Your task to perform on an android device: Go to CNN.com Image 0: 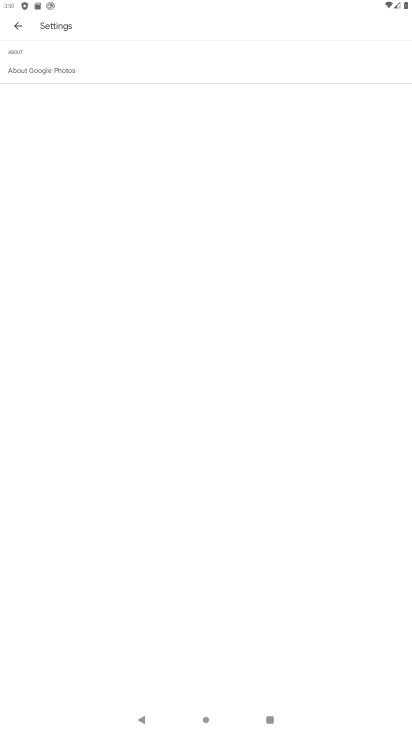
Step 0: press home button
Your task to perform on an android device: Go to CNN.com Image 1: 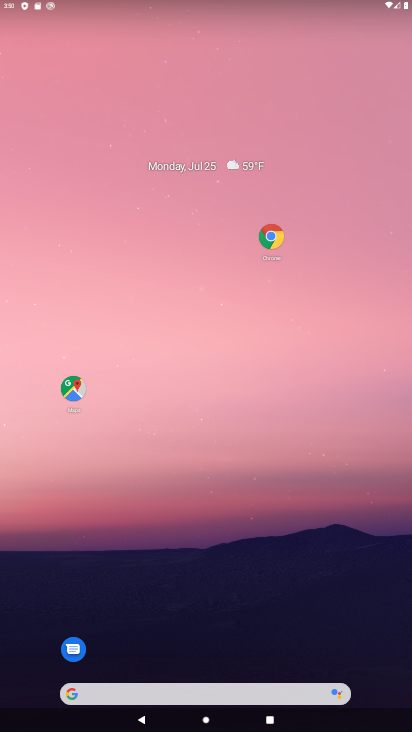
Step 1: drag from (233, 679) to (251, 228)
Your task to perform on an android device: Go to CNN.com Image 2: 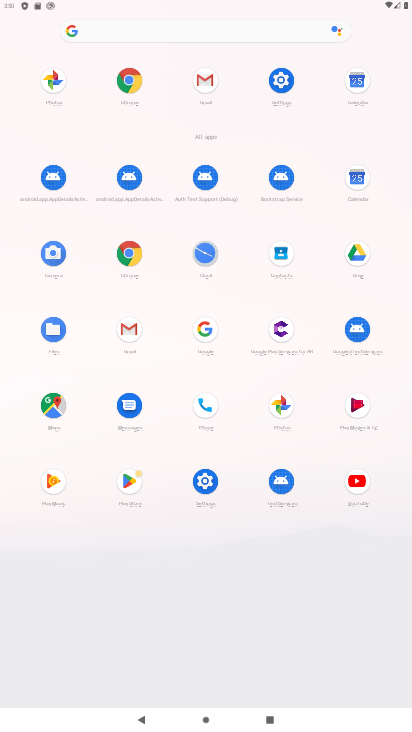
Step 2: click (132, 265)
Your task to perform on an android device: Go to CNN.com Image 3: 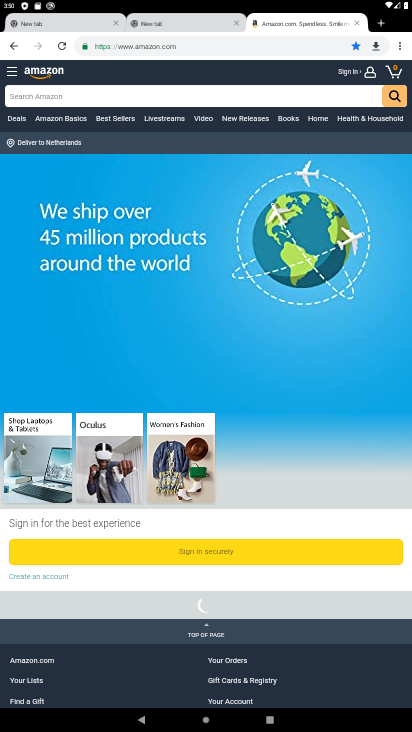
Step 3: click (185, 45)
Your task to perform on an android device: Go to CNN.com Image 4: 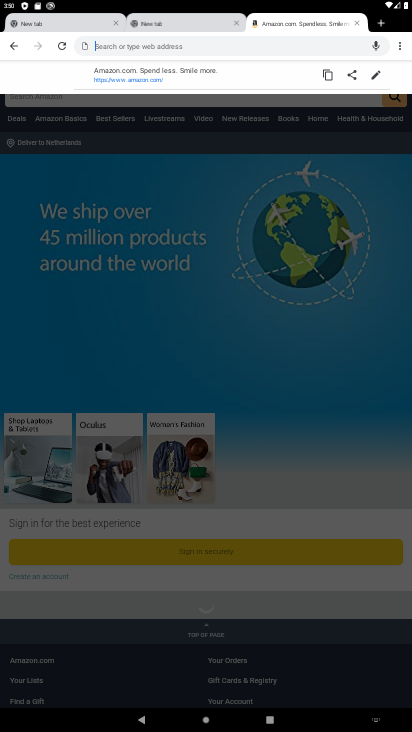
Step 4: type "cnn.com"
Your task to perform on an android device: Go to CNN.com Image 5: 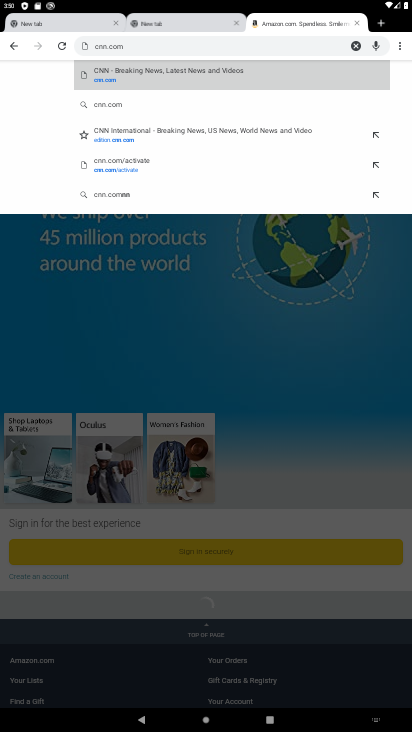
Step 5: click (259, 71)
Your task to perform on an android device: Go to CNN.com Image 6: 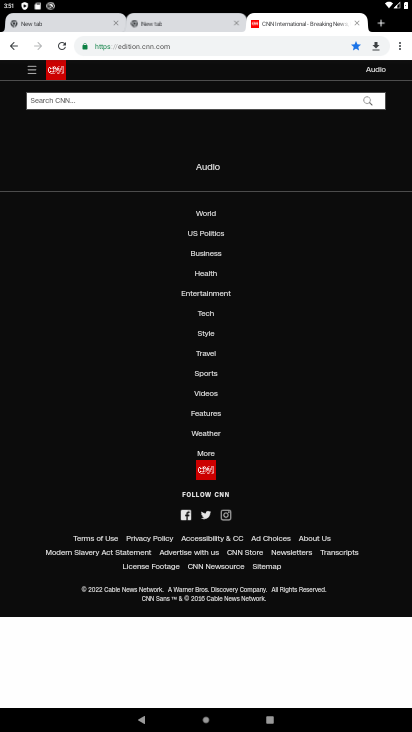
Step 6: task complete